Your task to perform on an android device: open the mobile data screen to see how much data has been used Image 0: 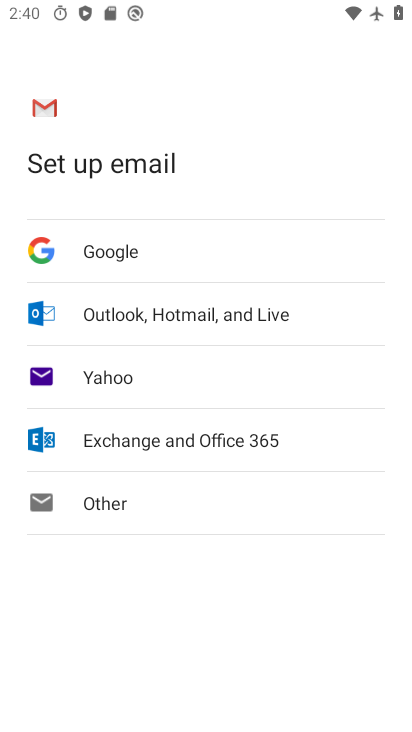
Step 0: press home button
Your task to perform on an android device: open the mobile data screen to see how much data has been used Image 1: 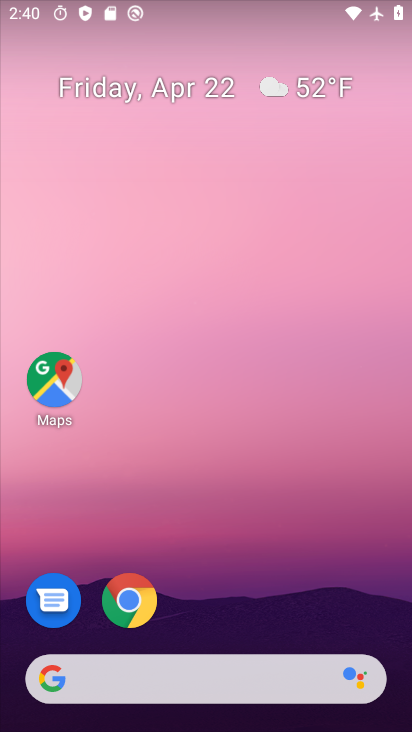
Step 1: drag from (213, 730) to (215, 198)
Your task to perform on an android device: open the mobile data screen to see how much data has been used Image 2: 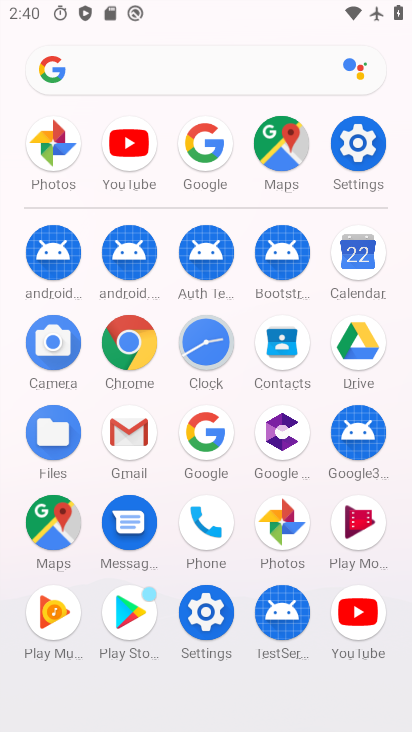
Step 2: click (365, 143)
Your task to perform on an android device: open the mobile data screen to see how much data has been used Image 3: 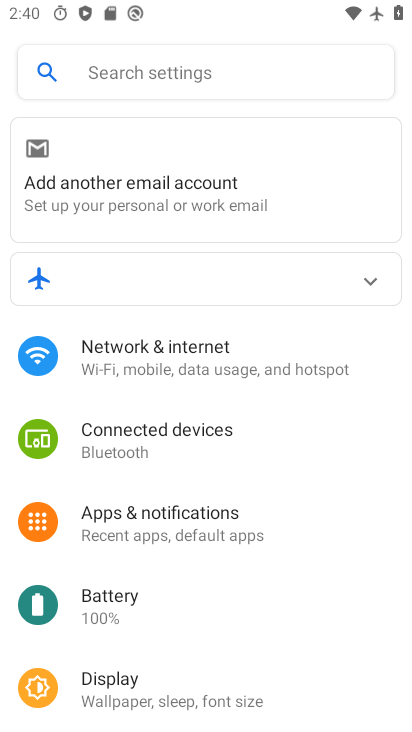
Step 3: click (165, 361)
Your task to perform on an android device: open the mobile data screen to see how much data has been used Image 4: 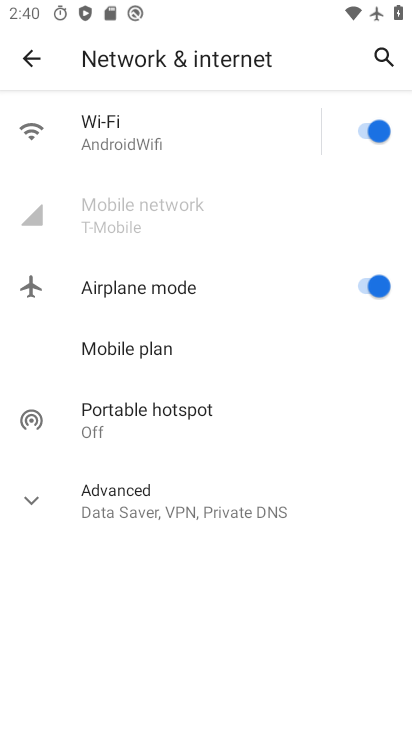
Step 4: click (356, 288)
Your task to perform on an android device: open the mobile data screen to see how much data has been used Image 5: 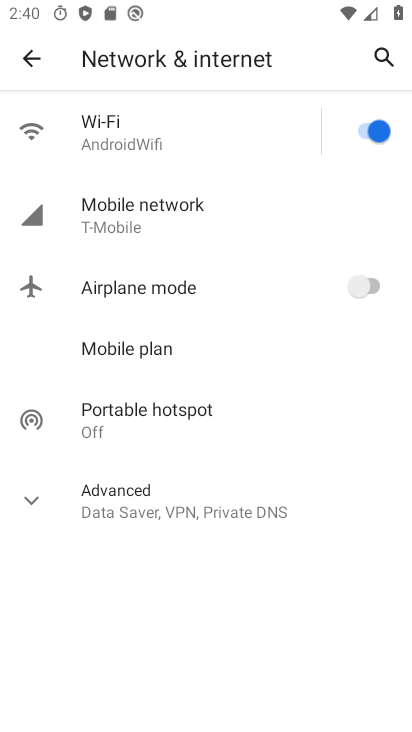
Step 5: click (159, 215)
Your task to perform on an android device: open the mobile data screen to see how much data has been used Image 6: 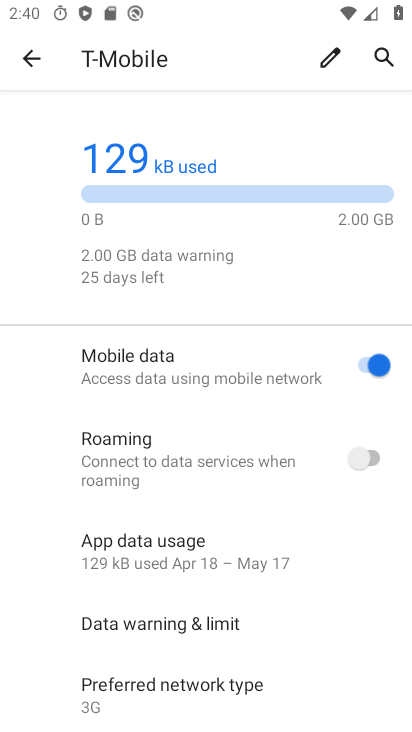
Step 6: click (162, 546)
Your task to perform on an android device: open the mobile data screen to see how much data has been used Image 7: 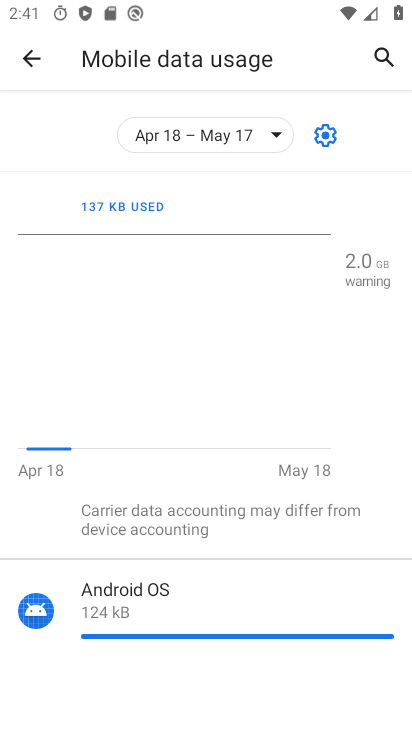
Step 7: task complete